Your task to perform on an android device: choose inbox layout in the gmail app Image 0: 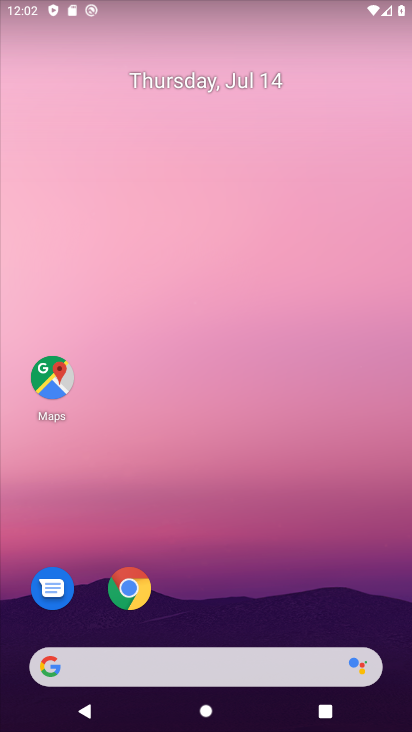
Step 0: drag from (296, 559) to (296, 228)
Your task to perform on an android device: choose inbox layout in the gmail app Image 1: 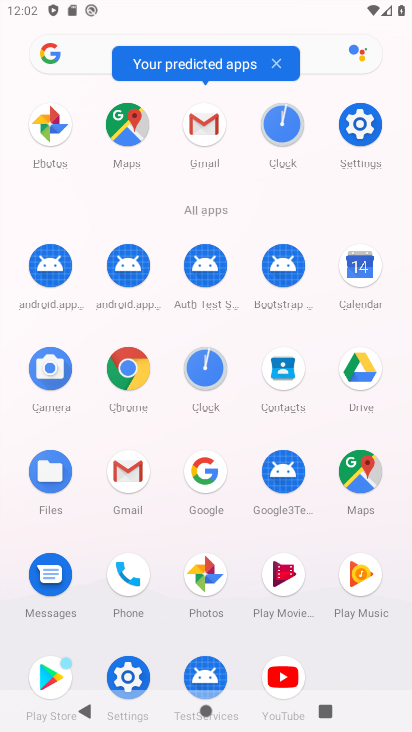
Step 1: click (222, 129)
Your task to perform on an android device: choose inbox layout in the gmail app Image 2: 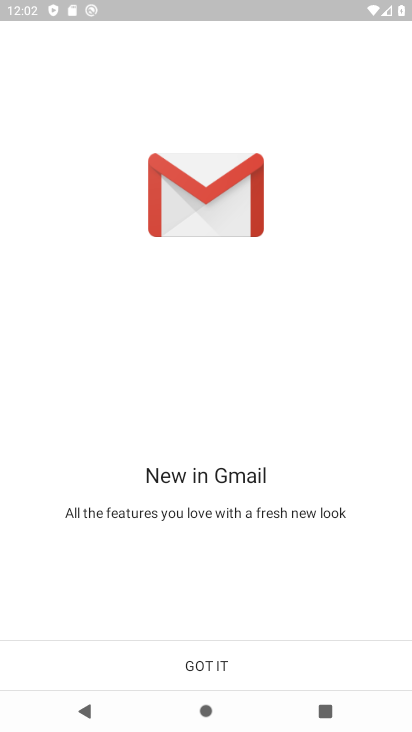
Step 2: click (194, 651)
Your task to perform on an android device: choose inbox layout in the gmail app Image 3: 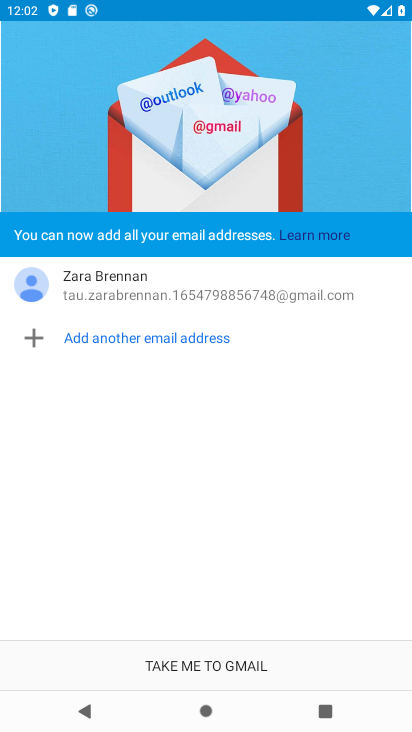
Step 3: click (194, 651)
Your task to perform on an android device: choose inbox layout in the gmail app Image 4: 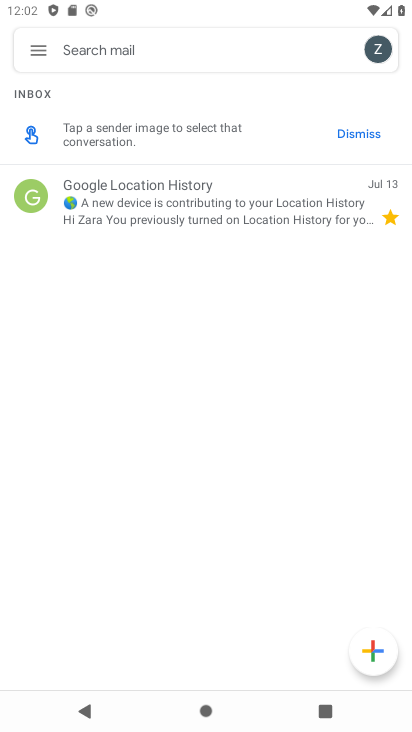
Step 4: click (44, 59)
Your task to perform on an android device: choose inbox layout in the gmail app Image 5: 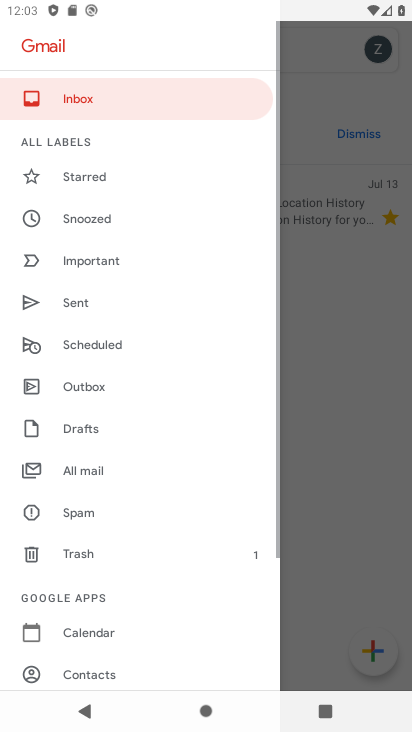
Step 5: click (83, 116)
Your task to perform on an android device: choose inbox layout in the gmail app Image 6: 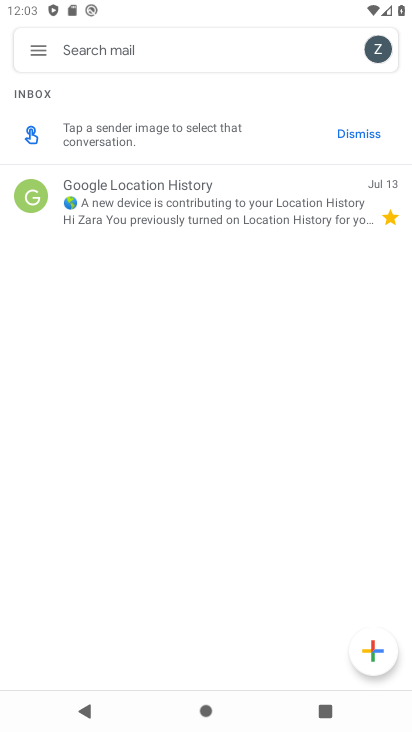
Step 6: task complete